Your task to perform on an android device: set an alarm Image 0: 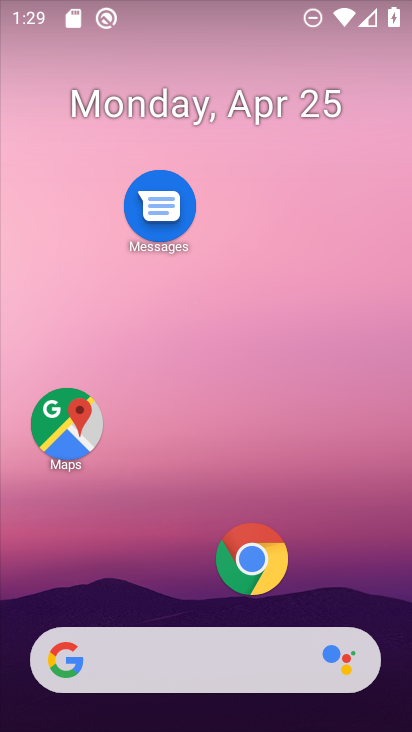
Step 0: drag from (182, 518) to (236, 118)
Your task to perform on an android device: set an alarm Image 1: 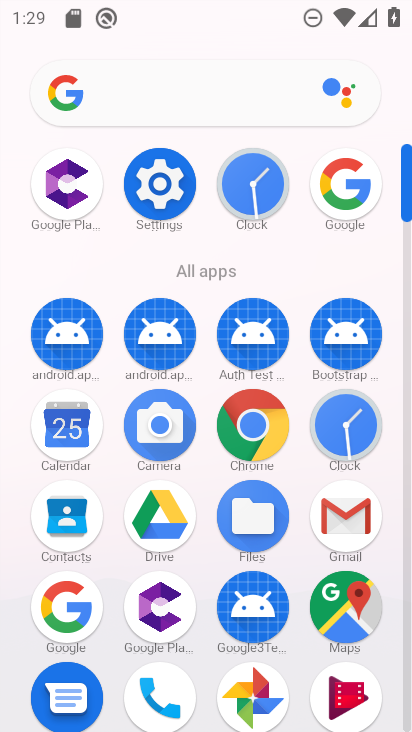
Step 1: click (343, 427)
Your task to perform on an android device: set an alarm Image 2: 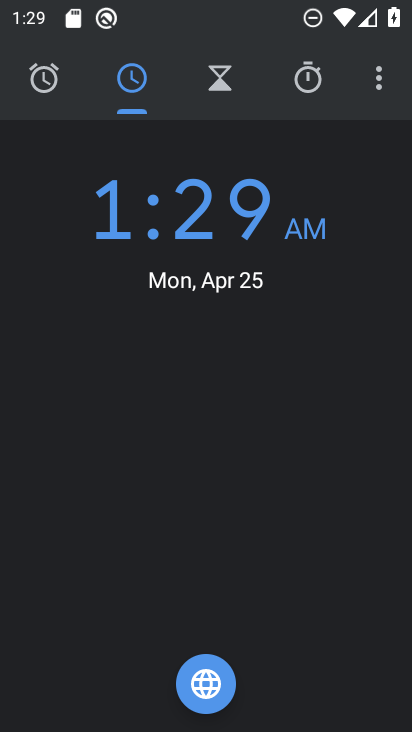
Step 2: click (47, 75)
Your task to perform on an android device: set an alarm Image 3: 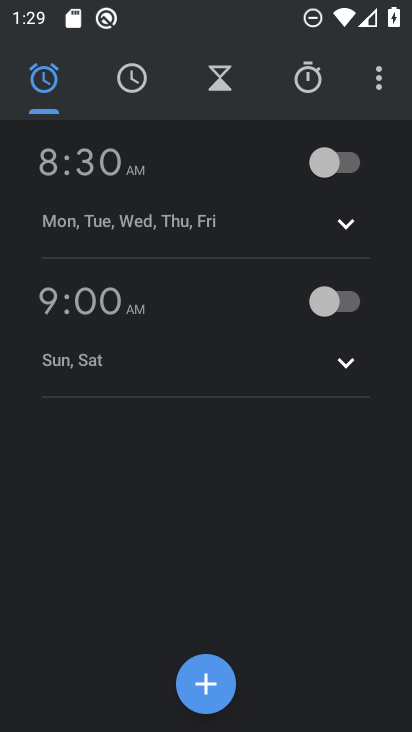
Step 3: click (341, 153)
Your task to perform on an android device: set an alarm Image 4: 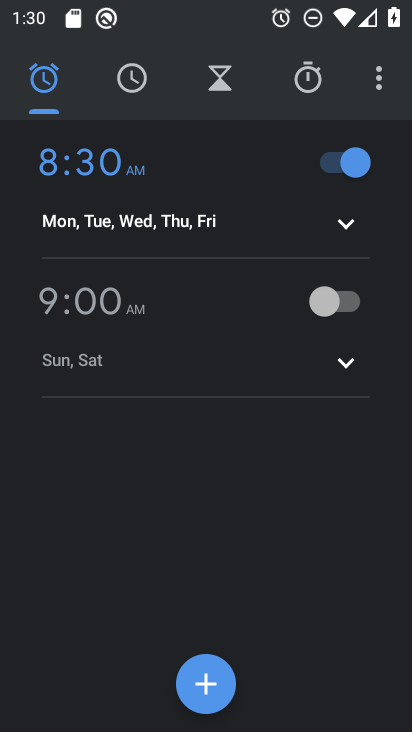
Step 4: task complete